Your task to perform on an android device: Go to Android settings Image 0: 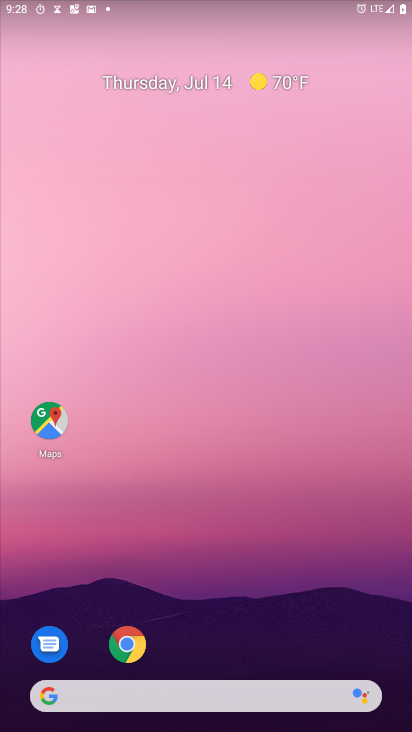
Step 0: drag from (146, 695) to (334, 110)
Your task to perform on an android device: Go to Android settings Image 1: 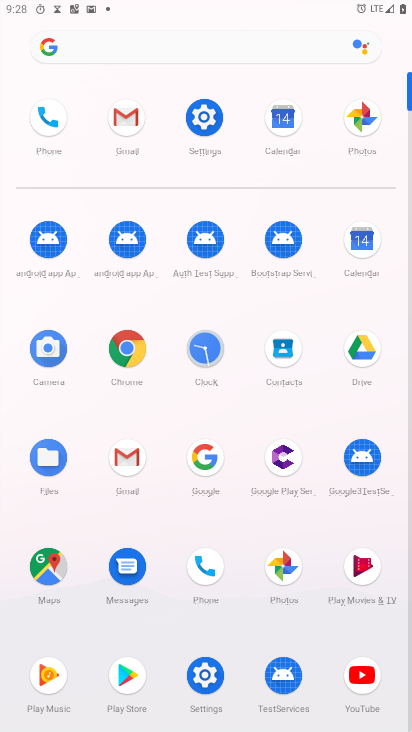
Step 1: click (211, 124)
Your task to perform on an android device: Go to Android settings Image 2: 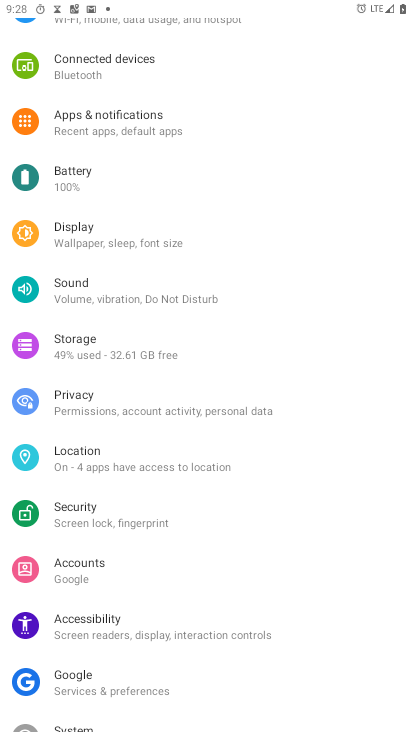
Step 2: task complete